Your task to perform on an android device: turn notification dots off Image 0: 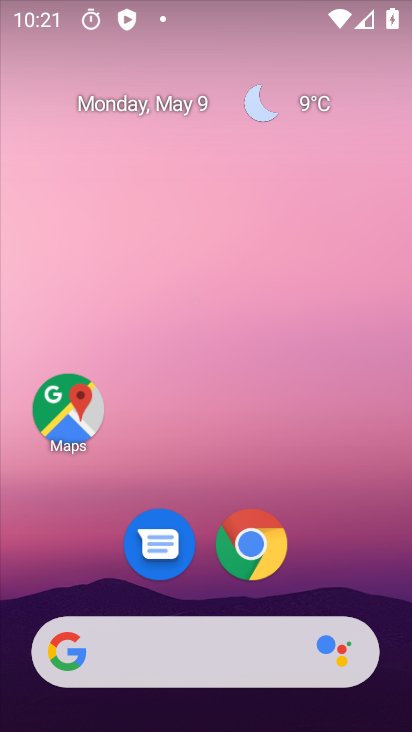
Step 0: drag from (390, 631) to (384, 209)
Your task to perform on an android device: turn notification dots off Image 1: 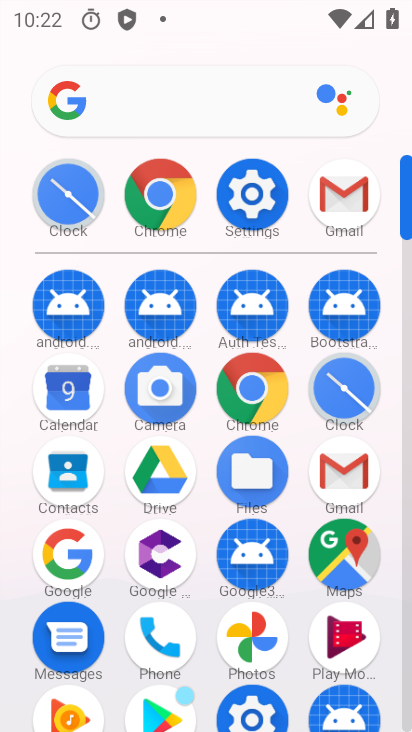
Step 1: click (258, 192)
Your task to perform on an android device: turn notification dots off Image 2: 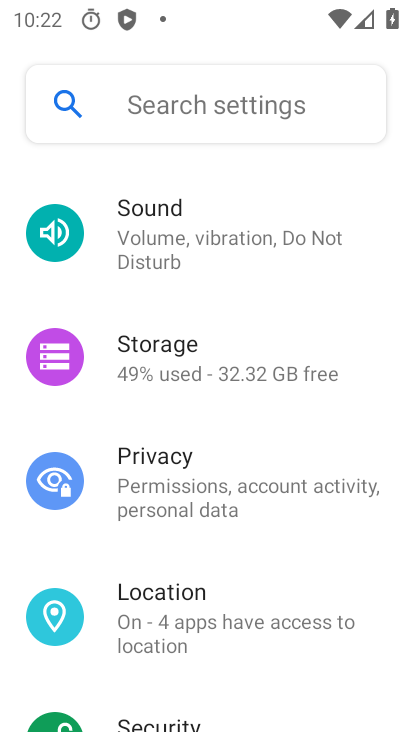
Step 2: drag from (388, 212) to (388, 570)
Your task to perform on an android device: turn notification dots off Image 3: 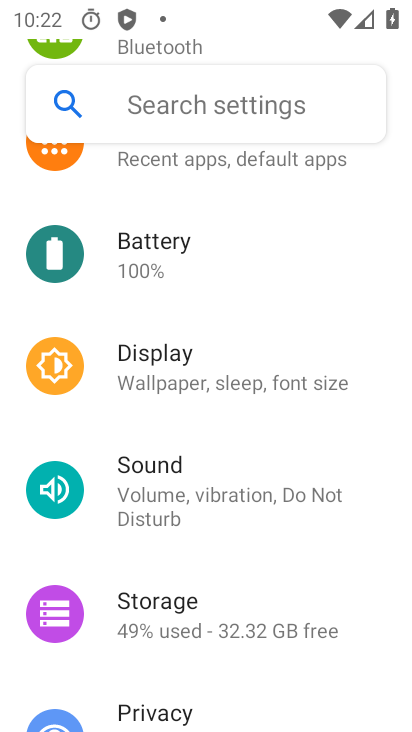
Step 3: drag from (358, 314) to (334, 590)
Your task to perform on an android device: turn notification dots off Image 4: 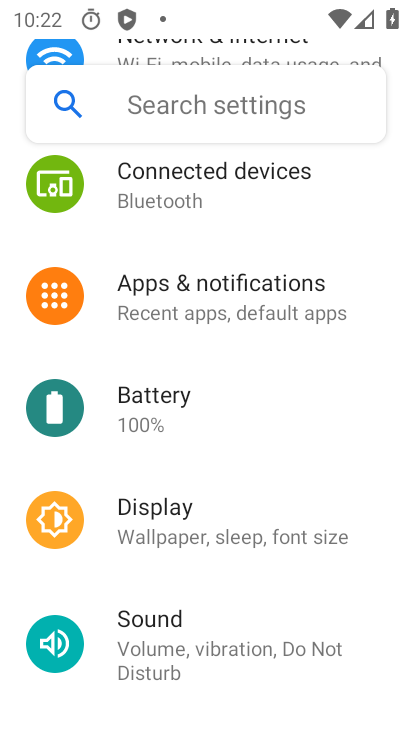
Step 4: click (246, 280)
Your task to perform on an android device: turn notification dots off Image 5: 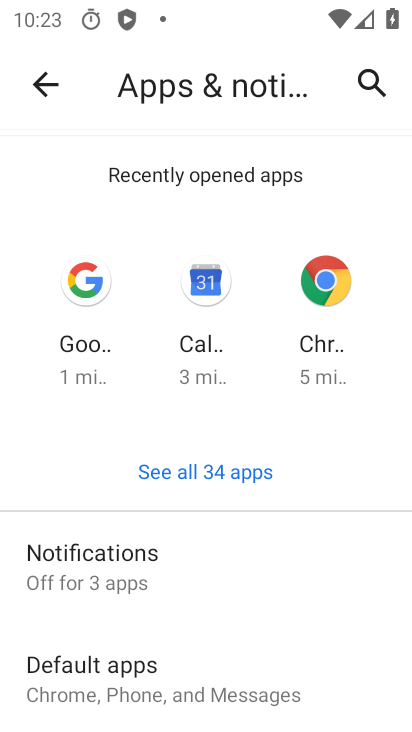
Step 5: click (101, 558)
Your task to perform on an android device: turn notification dots off Image 6: 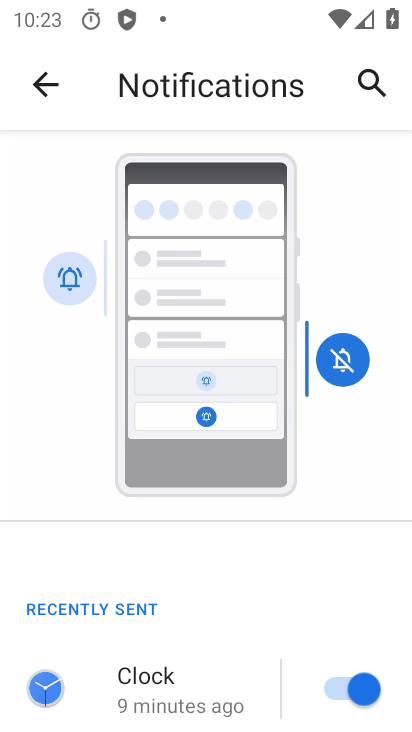
Step 6: drag from (250, 617) to (207, 361)
Your task to perform on an android device: turn notification dots off Image 7: 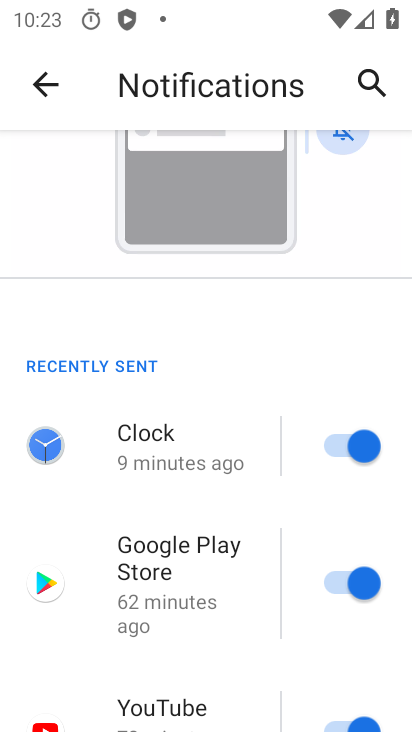
Step 7: drag from (274, 677) to (268, 491)
Your task to perform on an android device: turn notification dots off Image 8: 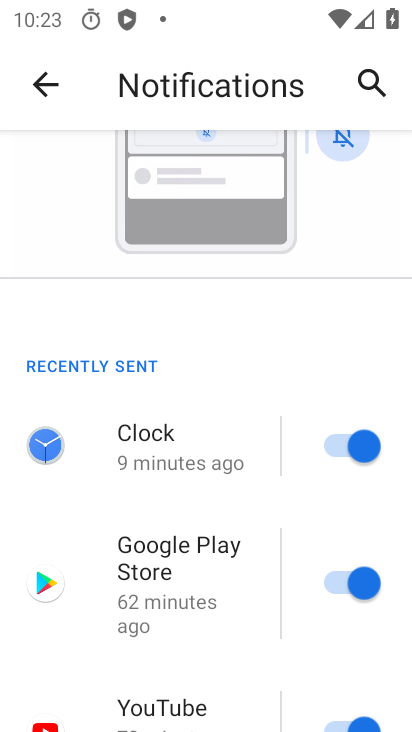
Step 8: drag from (260, 659) to (224, 426)
Your task to perform on an android device: turn notification dots off Image 9: 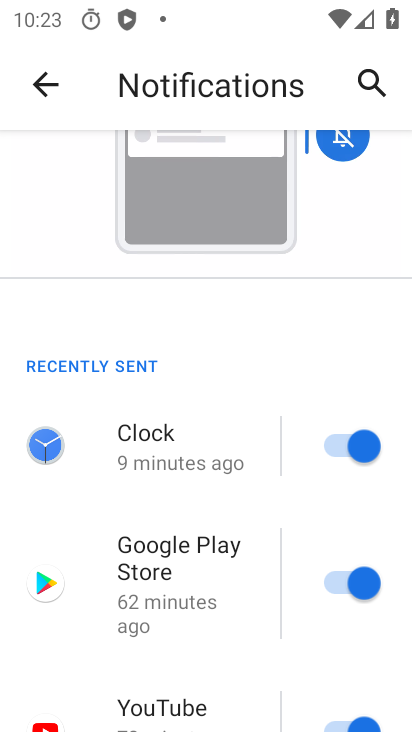
Step 9: drag from (271, 713) to (271, 433)
Your task to perform on an android device: turn notification dots off Image 10: 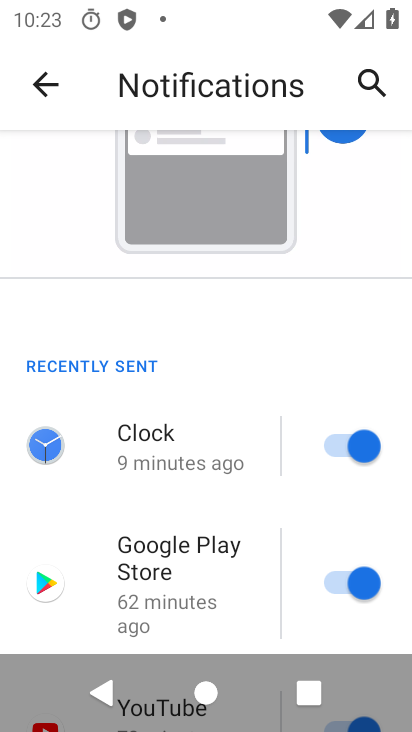
Step 10: drag from (261, 586) to (266, 373)
Your task to perform on an android device: turn notification dots off Image 11: 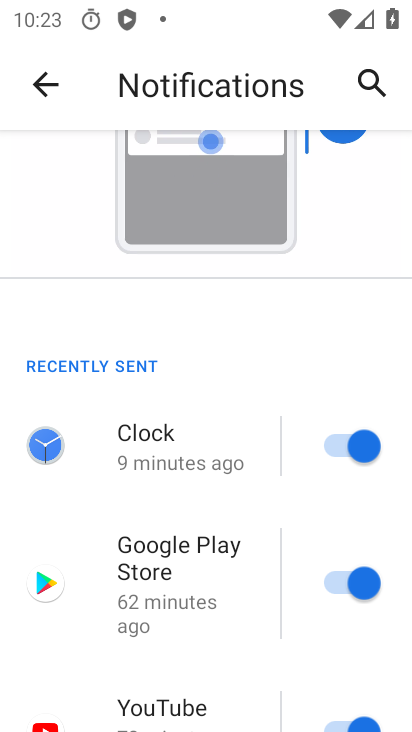
Step 11: drag from (255, 661) to (266, 325)
Your task to perform on an android device: turn notification dots off Image 12: 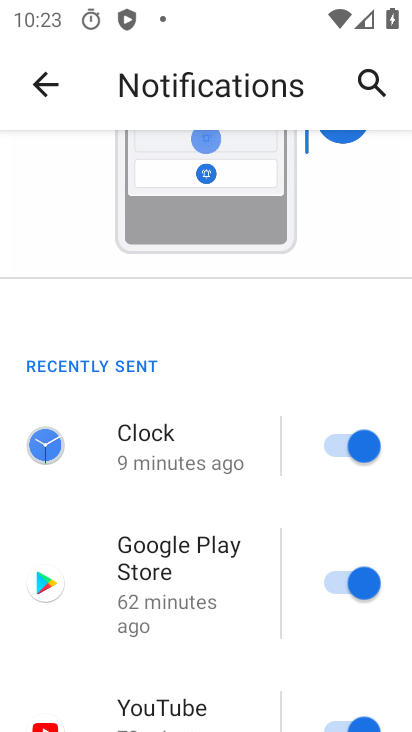
Step 12: drag from (265, 707) to (263, 374)
Your task to perform on an android device: turn notification dots off Image 13: 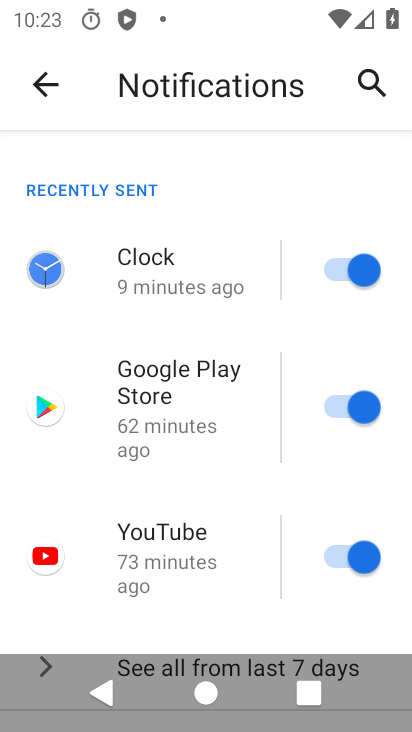
Step 13: drag from (246, 597) to (252, 376)
Your task to perform on an android device: turn notification dots off Image 14: 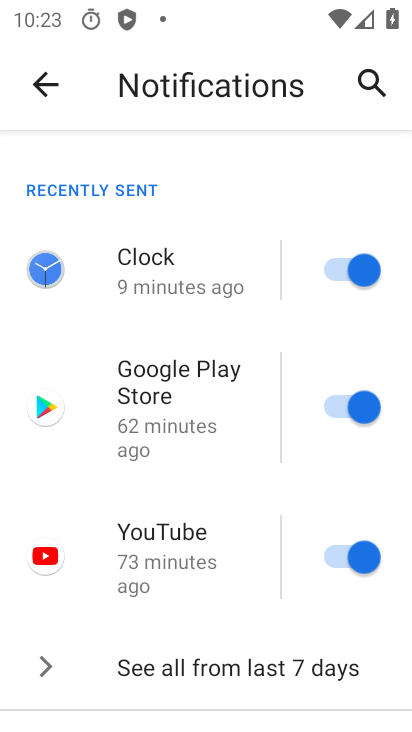
Step 14: drag from (256, 571) to (252, 324)
Your task to perform on an android device: turn notification dots off Image 15: 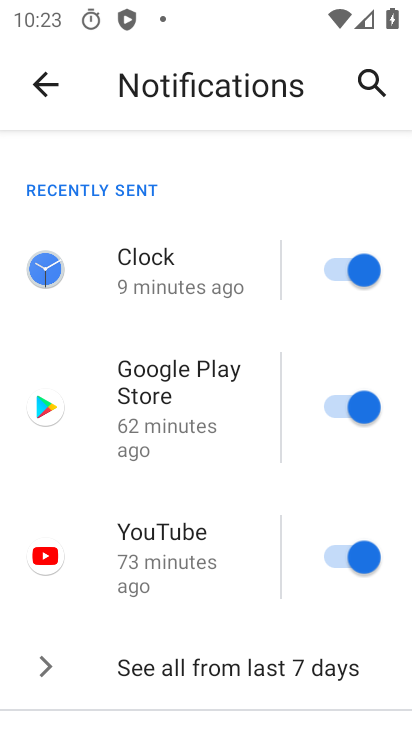
Step 15: drag from (258, 556) to (255, 325)
Your task to perform on an android device: turn notification dots off Image 16: 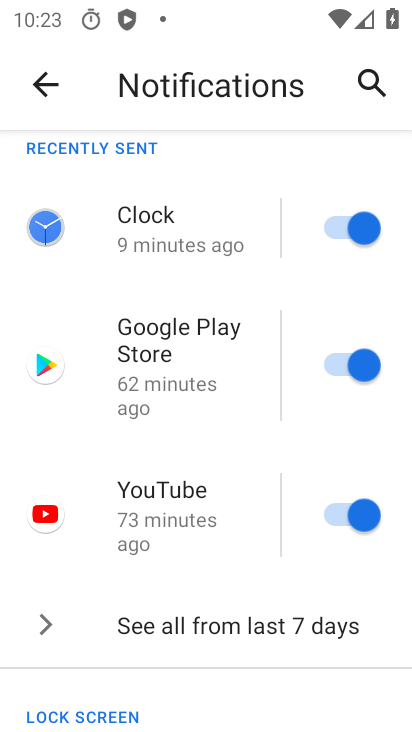
Step 16: drag from (250, 711) to (260, 405)
Your task to perform on an android device: turn notification dots off Image 17: 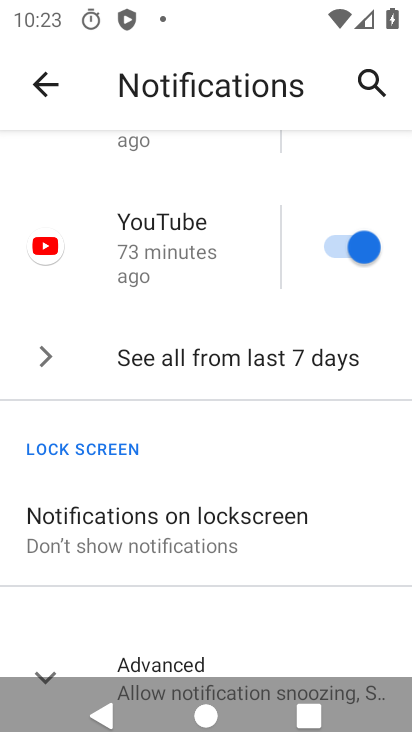
Step 17: drag from (315, 605) to (289, 268)
Your task to perform on an android device: turn notification dots off Image 18: 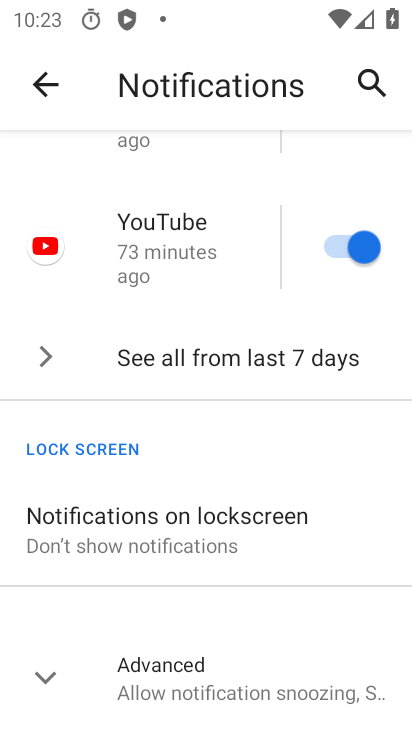
Step 18: click (59, 675)
Your task to perform on an android device: turn notification dots off Image 19: 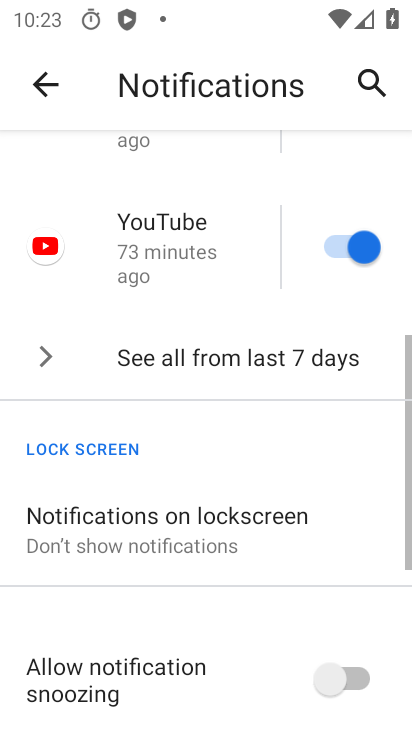
Step 19: drag from (239, 671) to (245, 390)
Your task to perform on an android device: turn notification dots off Image 20: 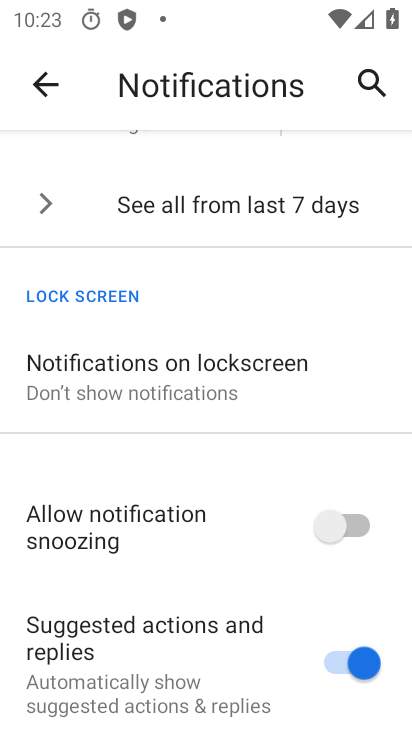
Step 20: drag from (244, 678) to (318, 315)
Your task to perform on an android device: turn notification dots off Image 21: 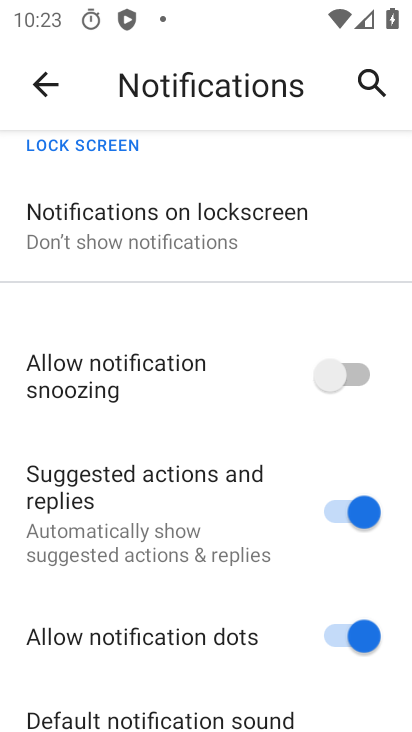
Step 21: click (337, 637)
Your task to perform on an android device: turn notification dots off Image 22: 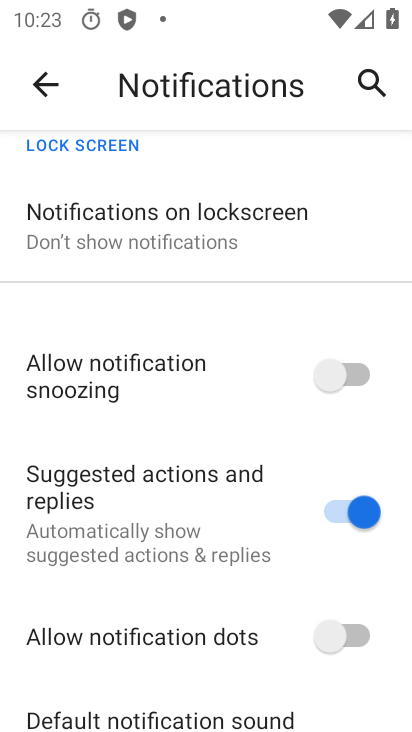
Step 22: task complete